Your task to perform on an android device: Open the calendar app, open the side menu, and click the "Day" option Image 0: 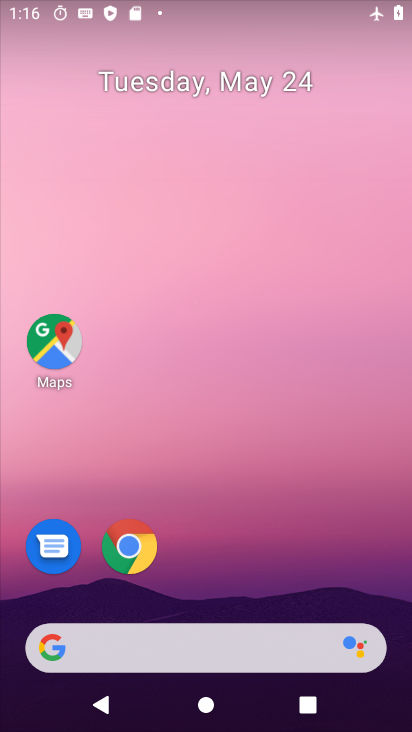
Step 0: drag from (217, 472) to (289, 240)
Your task to perform on an android device: Open the calendar app, open the side menu, and click the "Day" option Image 1: 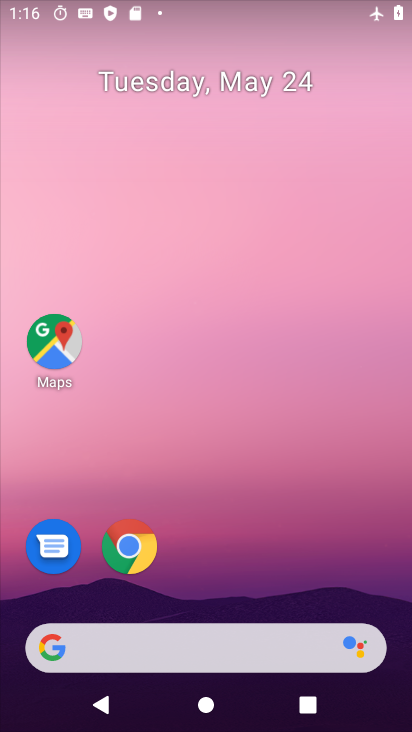
Step 1: drag from (218, 609) to (235, 168)
Your task to perform on an android device: Open the calendar app, open the side menu, and click the "Day" option Image 2: 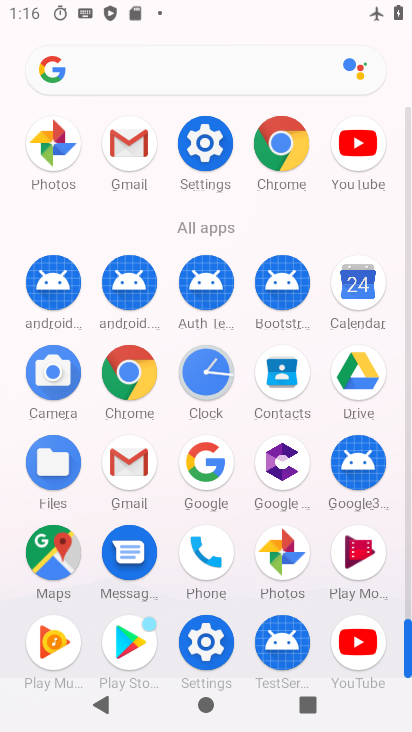
Step 2: click (363, 283)
Your task to perform on an android device: Open the calendar app, open the side menu, and click the "Day" option Image 3: 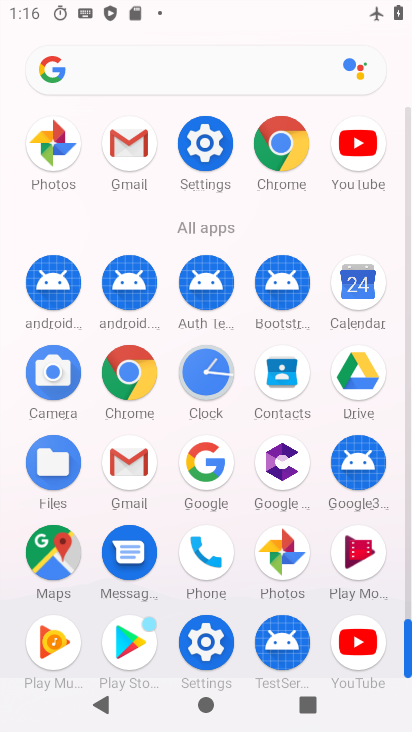
Step 3: click (362, 283)
Your task to perform on an android device: Open the calendar app, open the side menu, and click the "Day" option Image 4: 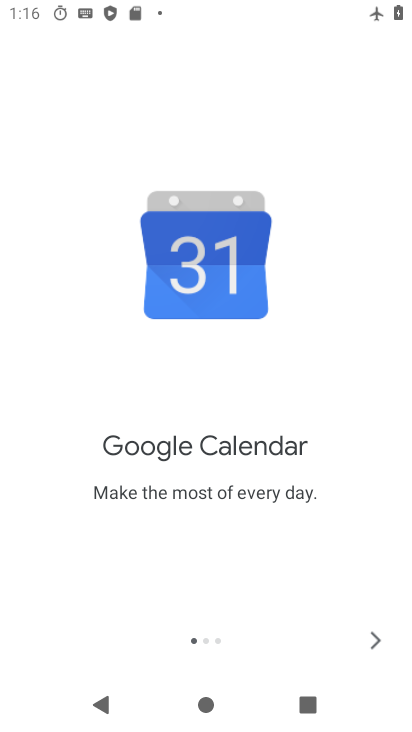
Step 4: click (361, 639)
Your task to perform on an android device: Open the calendar app, open the side menu, and click the "Day" option Image 5: 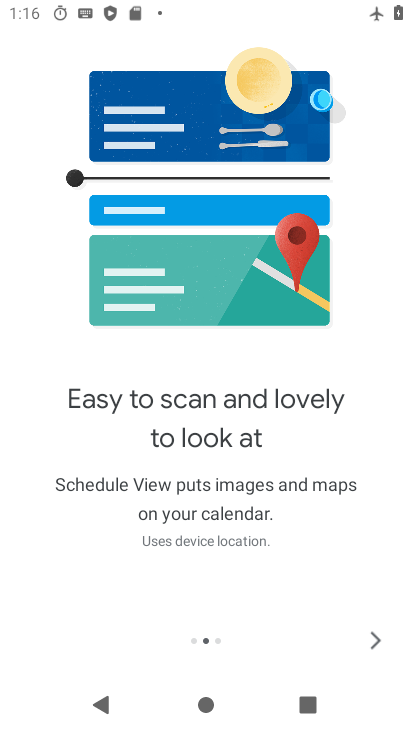
Step 5: click (361, 637)
Your task to perform on an android device: Open the calendar app, open the side menu, and click the "Day" option Image 6: 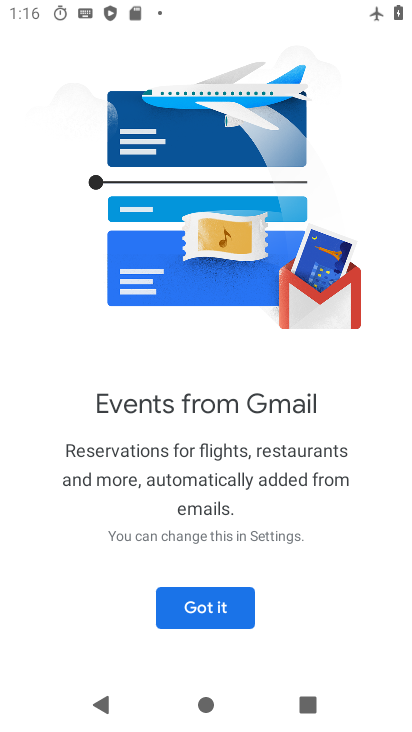
Step 6: click (192, 617)
Your task to perform on an android device: Open the calendar app, open the side menu, and click the "Day" option Image 7: 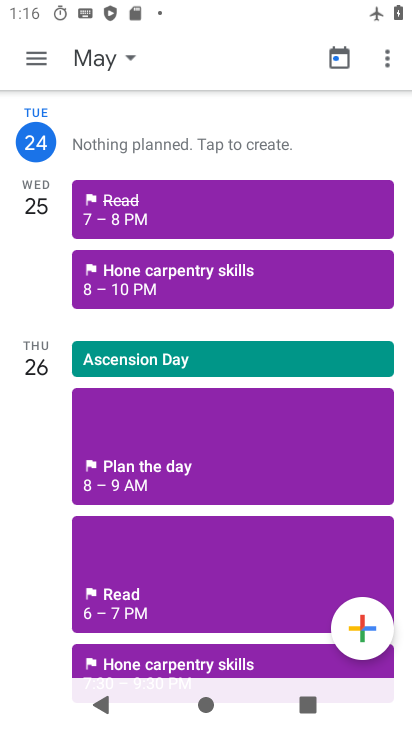
Step 7: click (45, 43)
Your task to perform on an android device: Open the calendar app, open the side menu, and click the "Day" option Image 8: 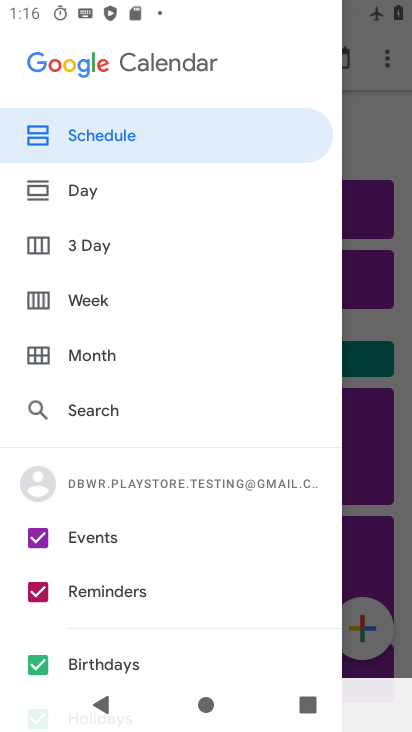
Step 8: click (101, 204)
Your task to perform on an android device: Open the calendar app, open the side menu, and click the "Day" option Image 9: 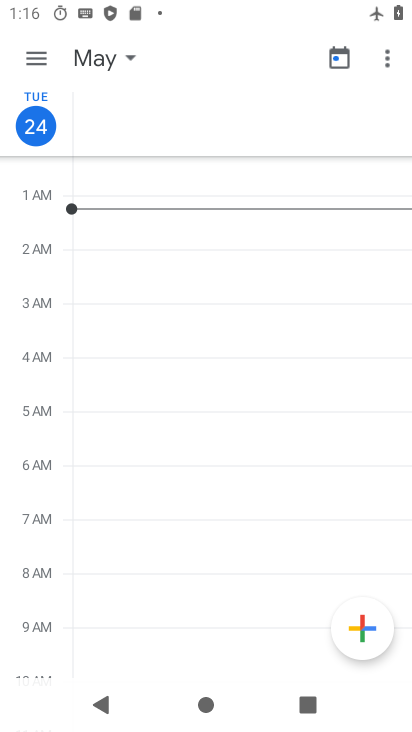
Step 9: task complete